Your task to perform on an android device: Open Android settings Image 0: 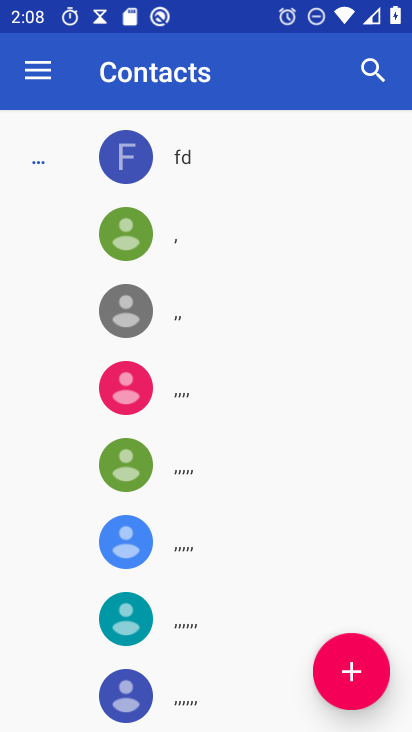
Step 0: press home button
Your task to perform on an android device: Open Android settings Image 1: 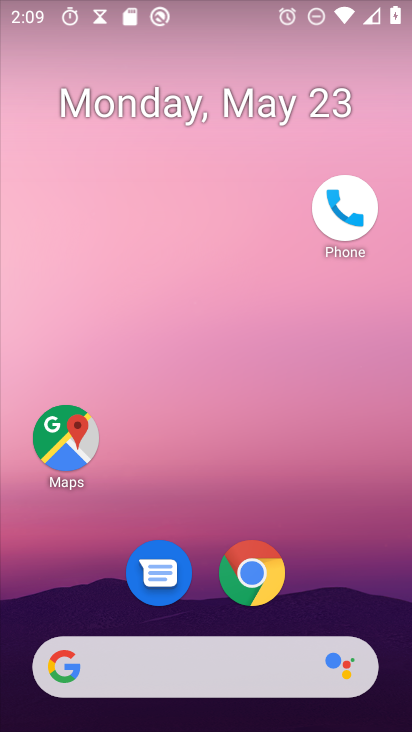
Step 1: drag from (194, 668) to (164, 105)
Your task to perform on an android device: Open Android settings Image 2: 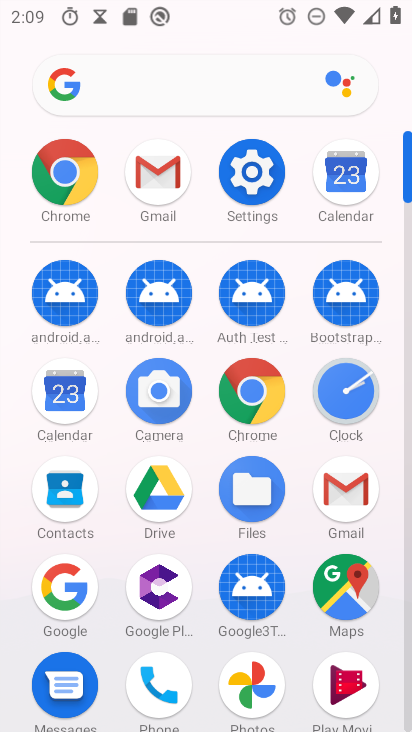
Step 2: click (245, 181)
Your task to perform on an android device: Open Android settings Image 3: 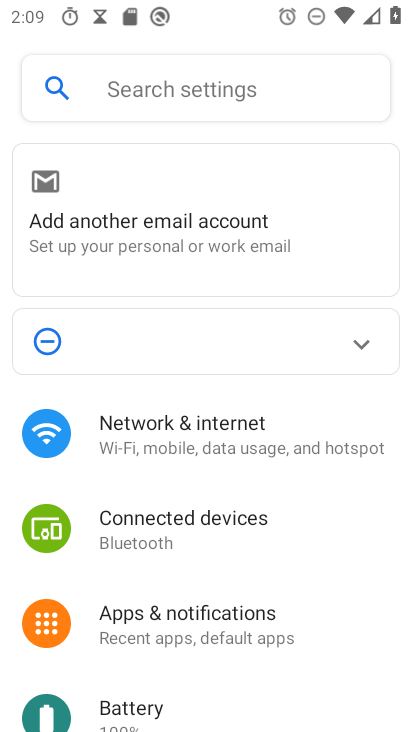
Step 3: task complete